Your task to perform on an android device: change alarm snooze length Image 0: 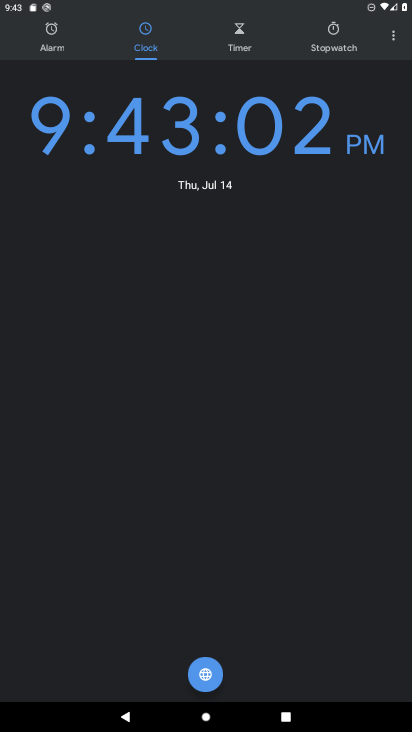
Step 0: press home button
Your task to perform on an android device: change alarm snooze length Image 1: 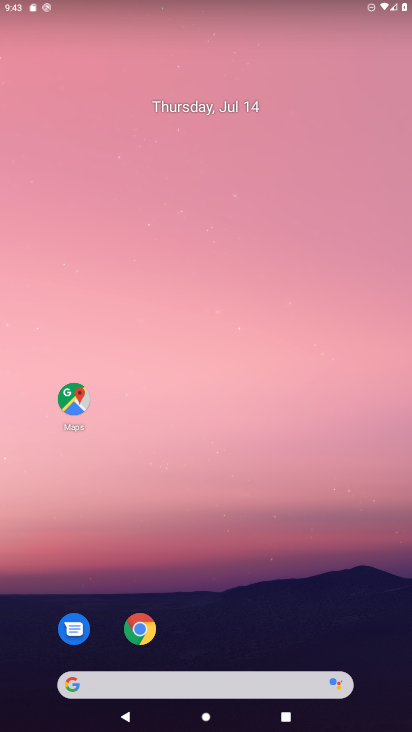
Step 1: drag from (268, 609) to (259, 12)
Your task to perform on an android device: change alarm snooze length Image 2: 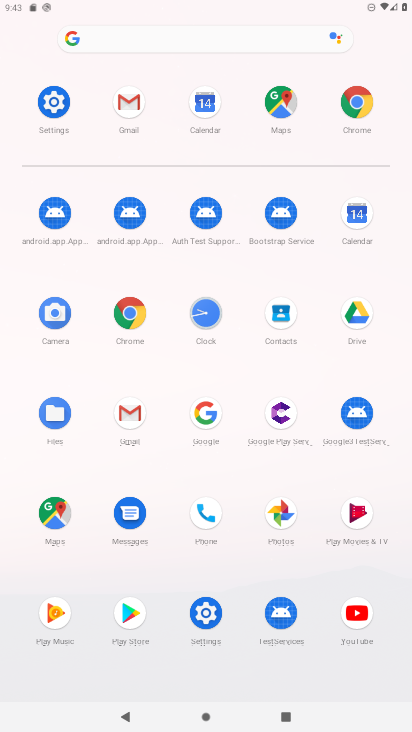
Step 2: click (200, 304)
Your task to perform on an android device: change alarm snooze length Image 3: 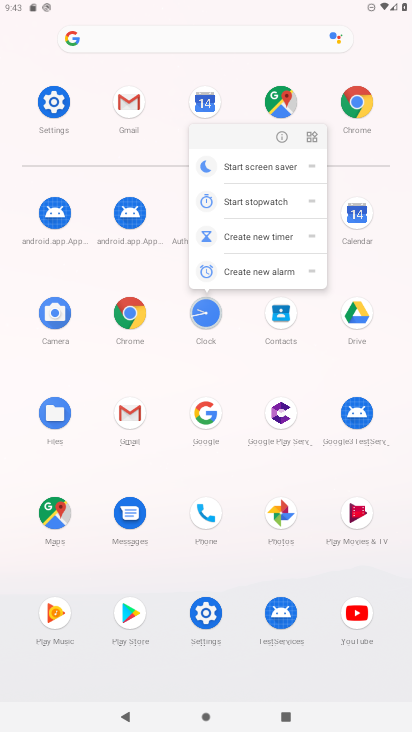
Step 3: click (206, 312)
Your task to perform on an android device: change alarm snooze length Image 4: 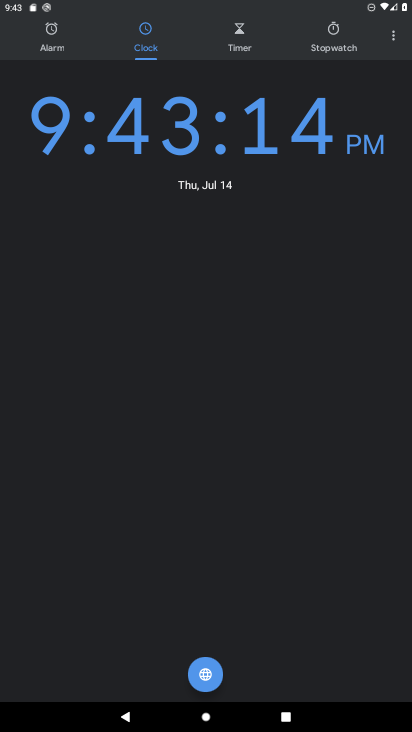
Step 4: click (395, 37)
Your task to perform on an android device: change alarm snooze length Image 5: 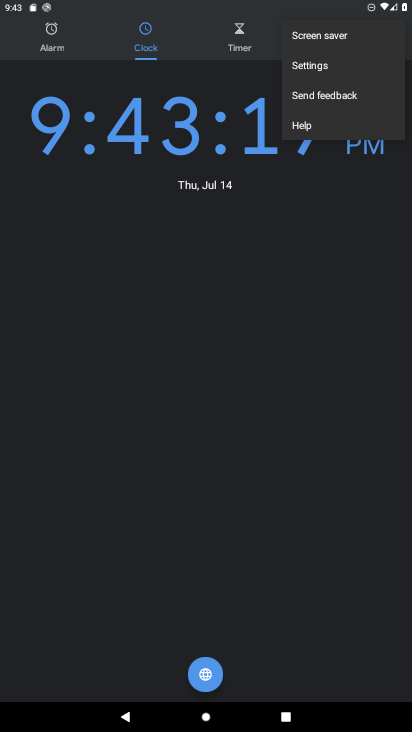
Step 5: click (312, 71)
Your task to perform on an android device: change alarm snooze length Image 6: 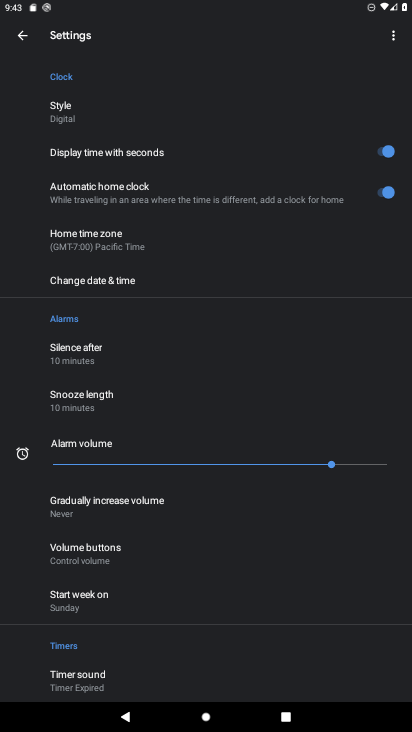
Step 6: click (62, 387)
Your task to perform on an android device: change alarm snooze length Image 7: 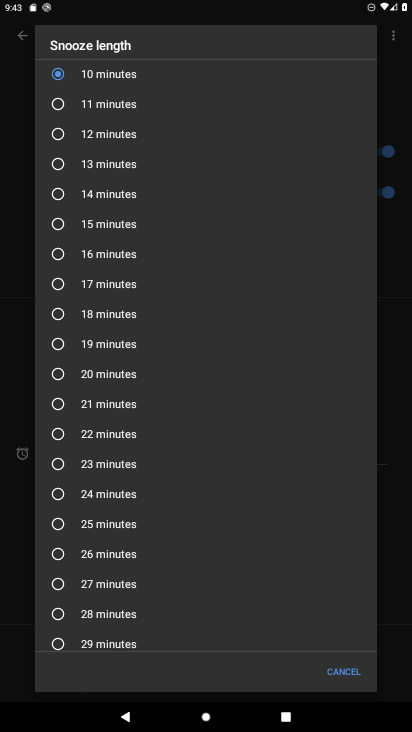
Step 7: click (105, 115)
Your task to perform on an android device: change alarm snooze length Image 8: 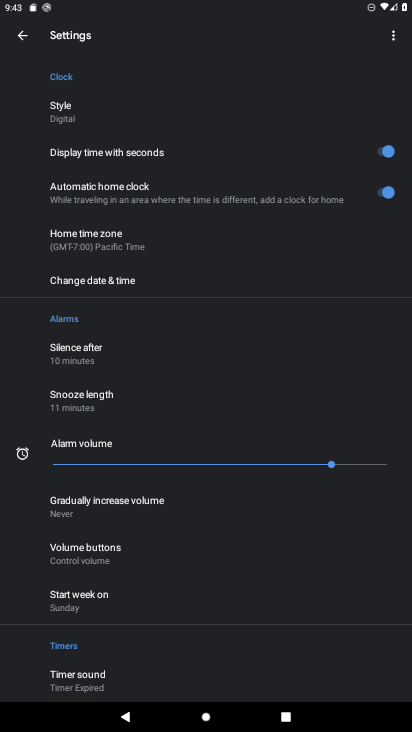
Step 8: task complete